Your task to perform on an android device: Empty the shopping cart on newegg.com. Search for "alienware aurora" on newegg.com, select the first entry, and add it to the cart. Image 0: 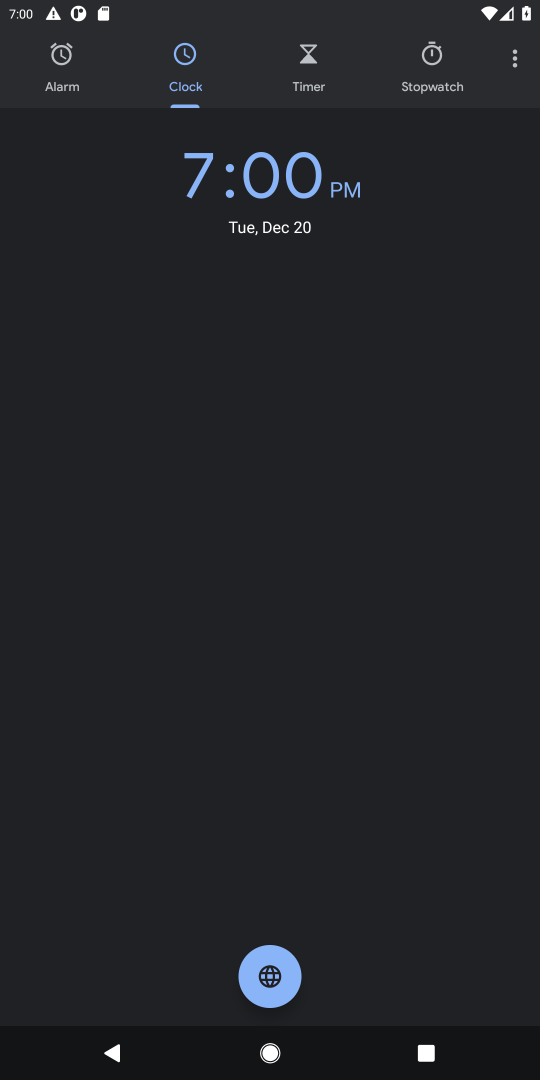
Step 0: press home button
Your task to perform on an android device: Empty the shopping cart on newegg.com. Search for "alienware aurora" on newegg.com, select the first entry, and add it to the cart. Image 1: 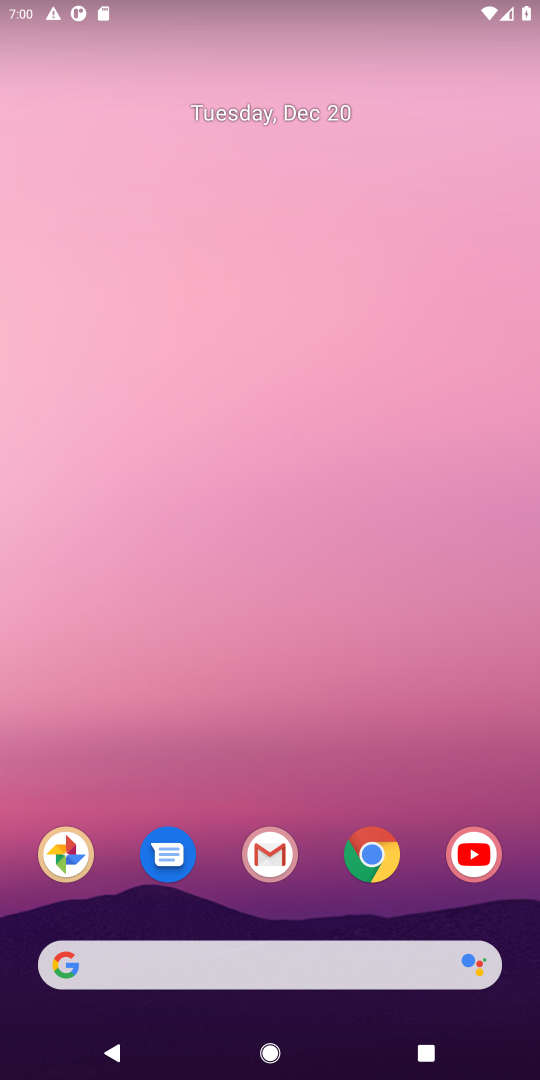
Step 1: click (379, 842)
Your task to perform on an android device: Empty the shopping cart on newegg.com. Search for "alienware aurora" on newegg.com, select the first entry, and add it to the cart. Image 2: 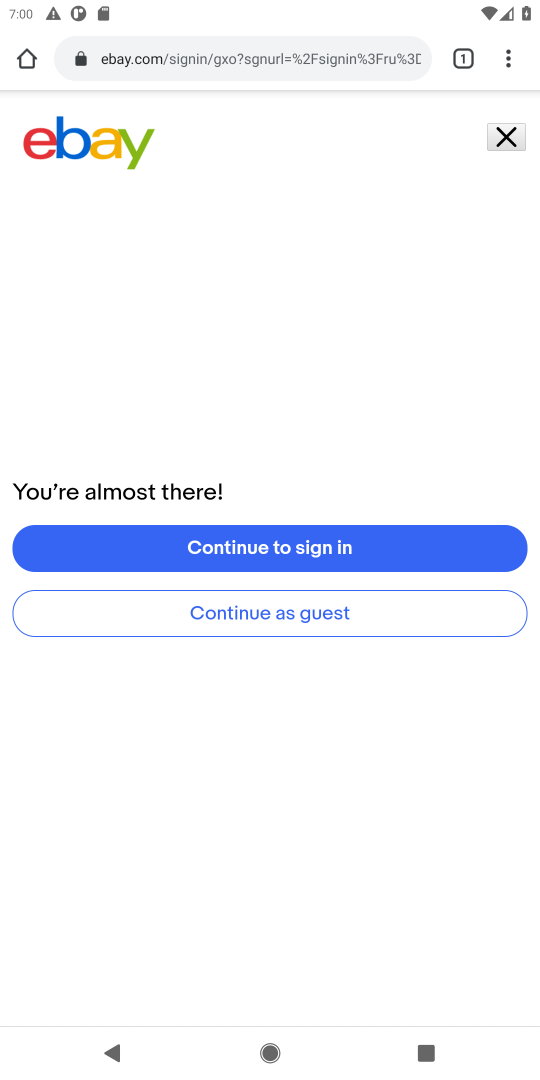
Step 2: click (158, 64)
Your task to perform on an android device: Empty the shopping cart on newegg.com. Search for "alienware aurora" on newegg.com, select the first entry, and add it to the cart. Image 3: 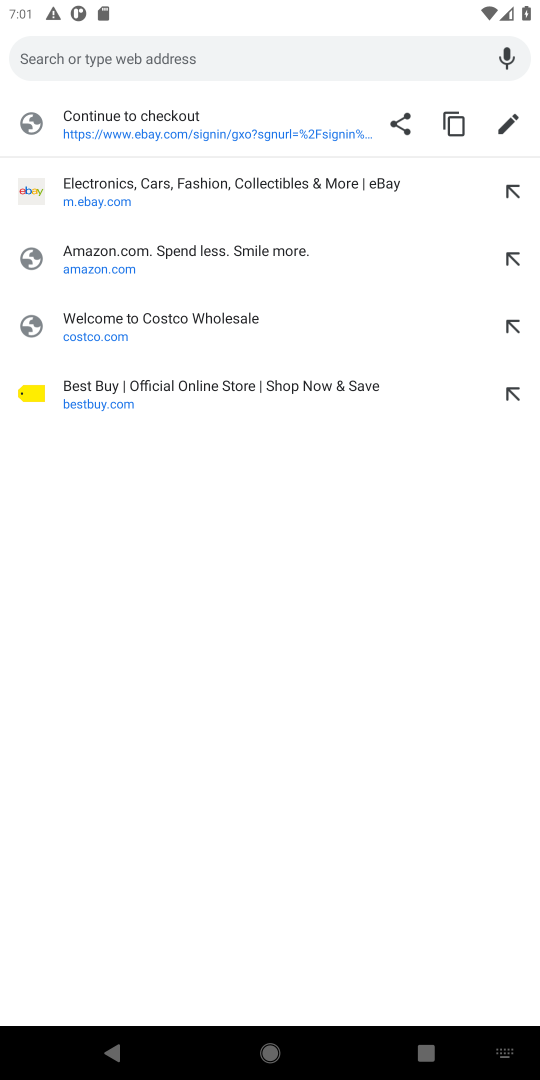
Step 3: type "newegg.com"
Your task to perform on an android device: Empty the shopping cart on newegg.com. Search for "alienware aurora" on newegg.com, select the first entry, and add it to the cart. Image 4: 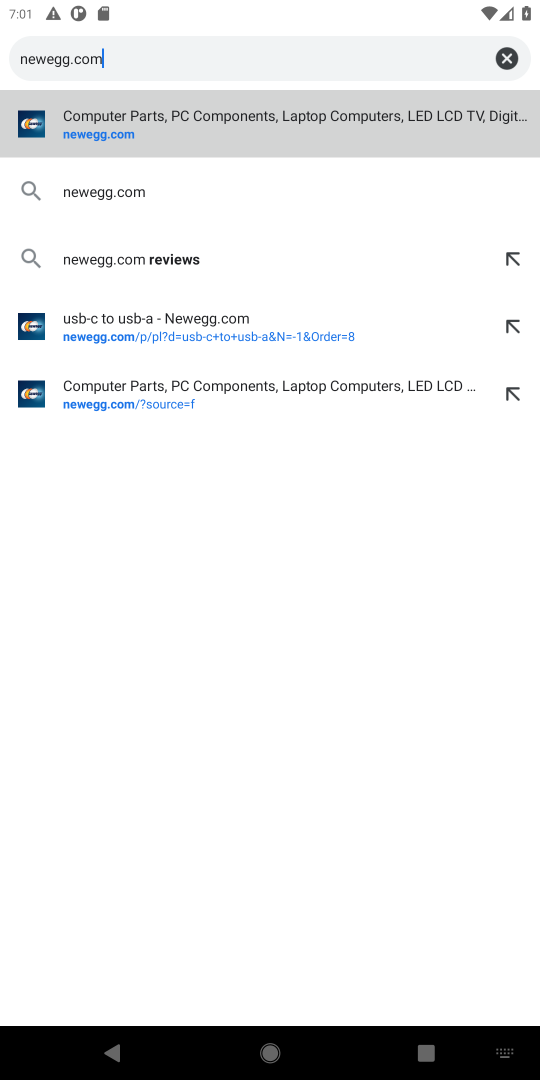
Step 4: click (108, 135)
Your task to perform on an android device: Empty the shopping cart on newegg.com. Search for "alienware aurora" on newegg.com, select the first entry, and add it to the cart. Image 5: 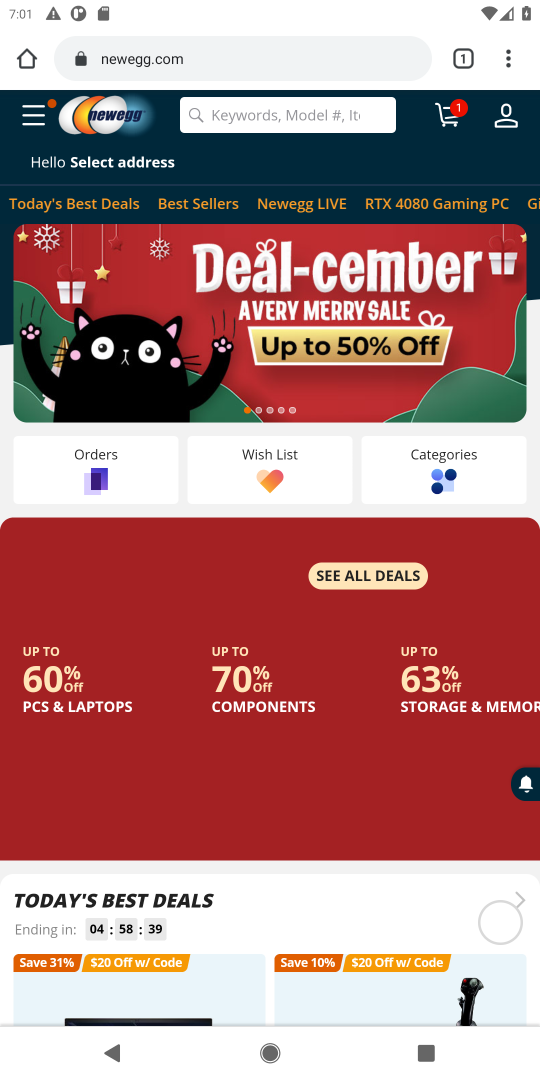
Step 5: click (459, 121)
Your task to perform on an android device: Empty the shopping cart on newegg.com. Search for "alienware aurora" on newegg.com, select the first entry, and add it to the cart. Image 6: 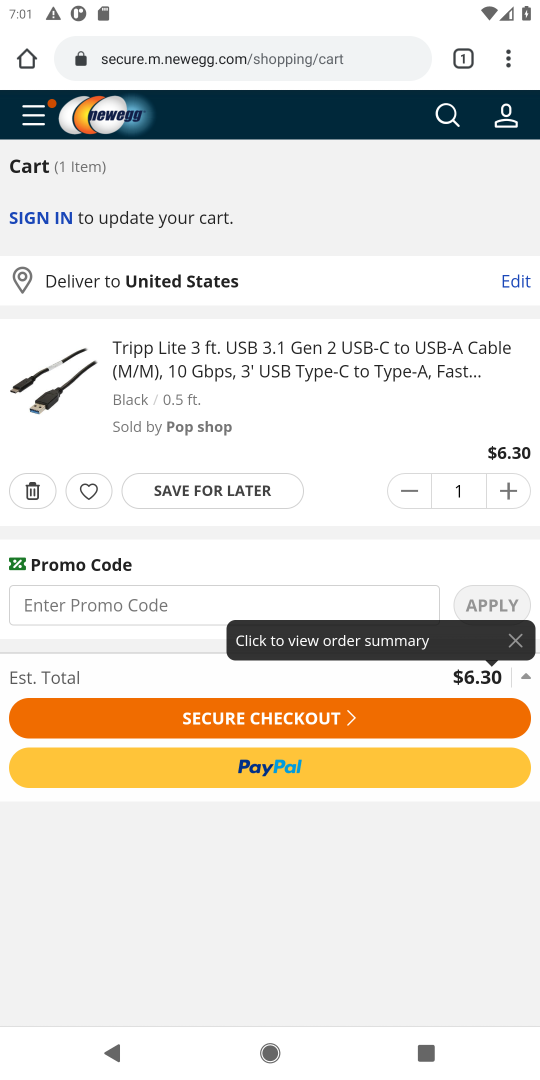
Step 6: click (34, 490)
Your task to perform on an android device: Empty the shopping cart on newegg.com. Search for "alienware aurora" on newegg.com, select the first entry, and add it to the cart. Image 7: 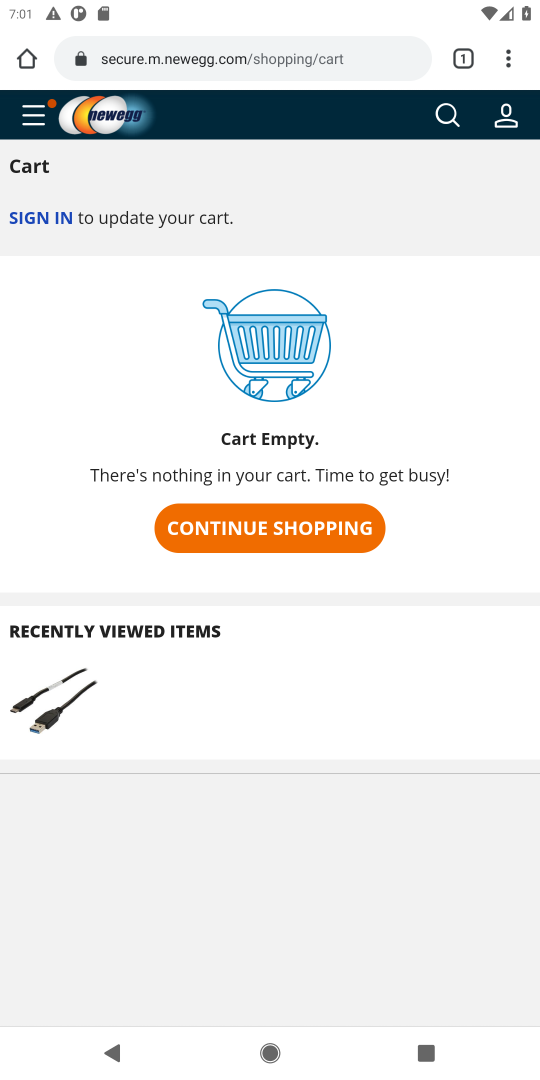
Step 7: click (447, 110)
Your task to perform on an android device: Empty the shopping cart on newegg.com. Search for "alienware aurora" on newegg.com, select the first entry, and add it to the cart. Image 8: 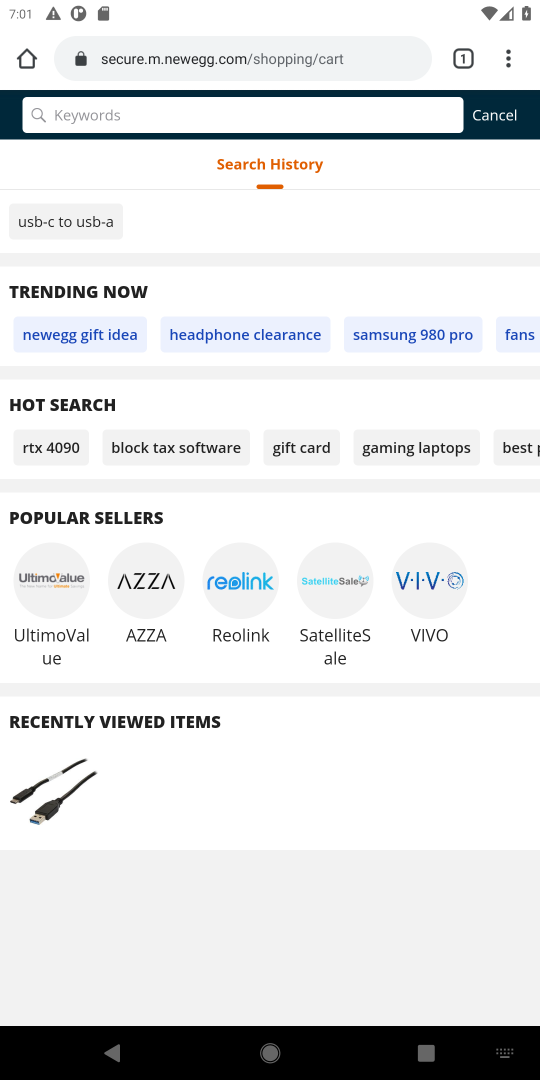
Step 8: type "alienware aurora"
Your task to perform on an android device: Empty the shopping cart on newegg.com. Search for "alienware aurora" on newegg.com, select the first entry, and add it to the cart. Image 9: 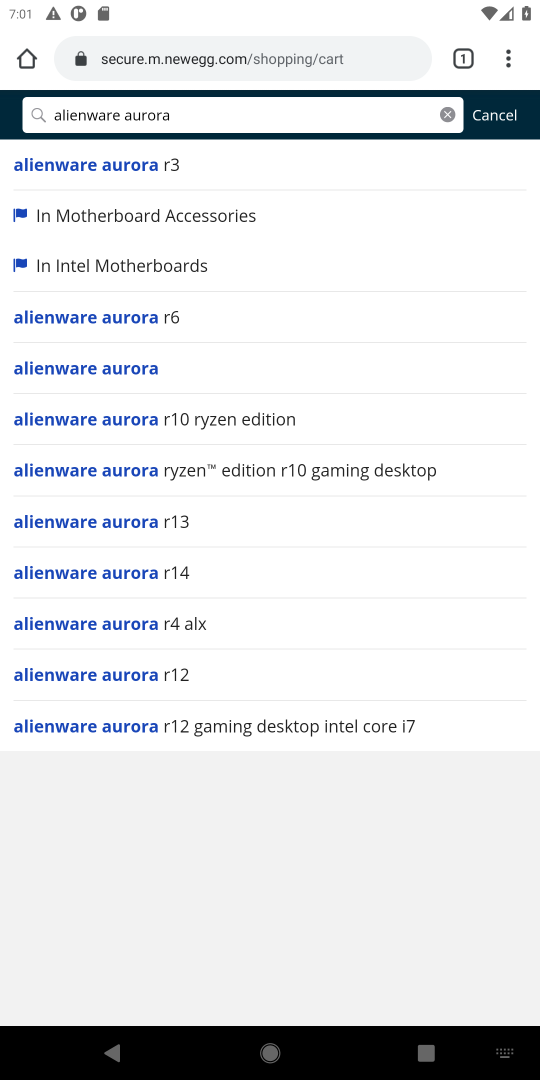
Step 9: click (63, 367)
Your task to perform on an android device: Empty the shopping cart on newegg.com. Search for "alienware aurora" on newegg.com, select the first entry, and add it to the cart. Image 10: 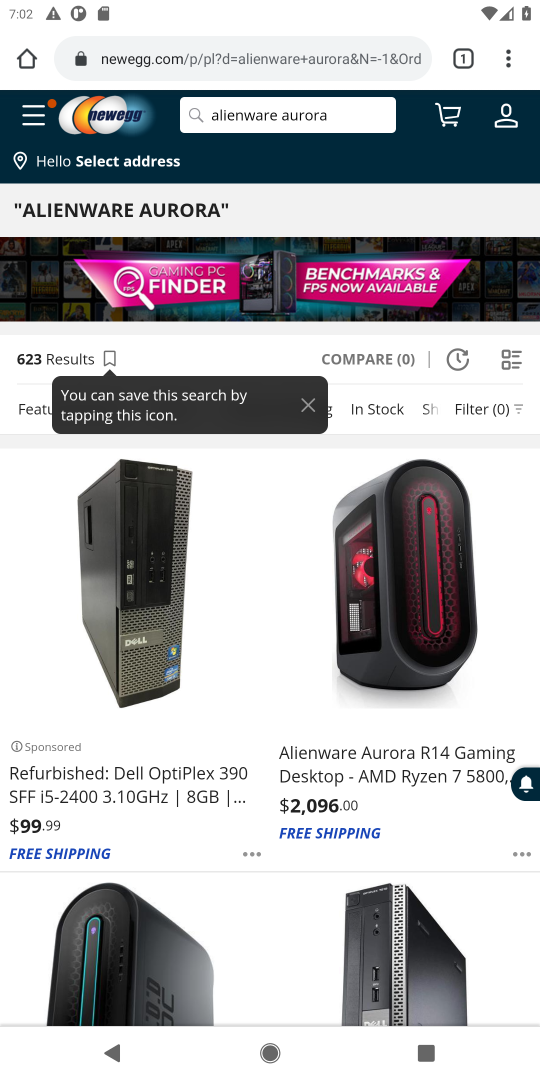
Step 10: click (94, 777)
Your task to perform on an android device: Empty the shopping cart on newegg.com. Search for "alienware aurora" on newegg.com, select the first entry, and add it to the cart. Image 11: 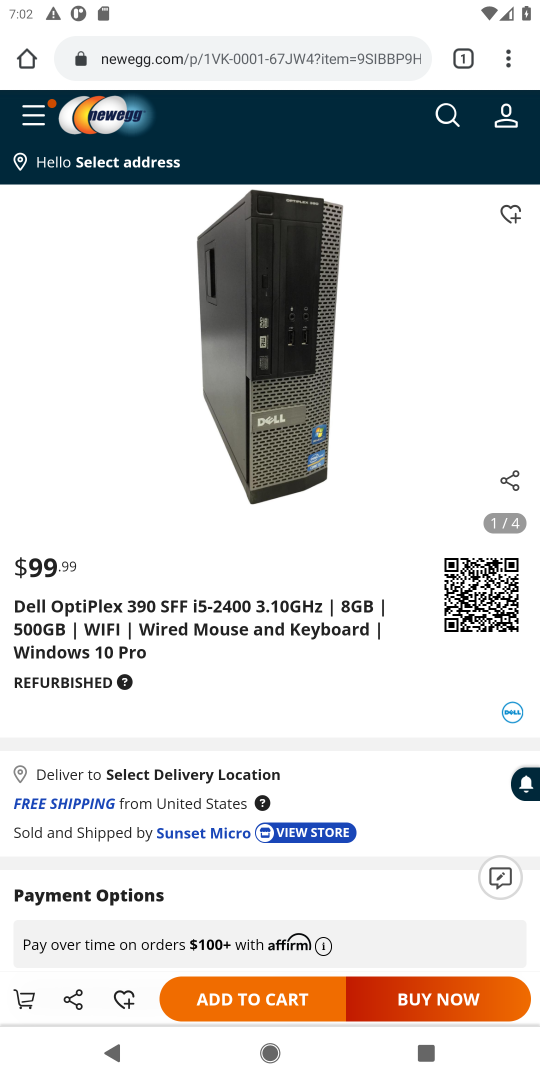
Step 11: task complete